Your task to perform on an android device: see creations saved in the google photos Image 0: 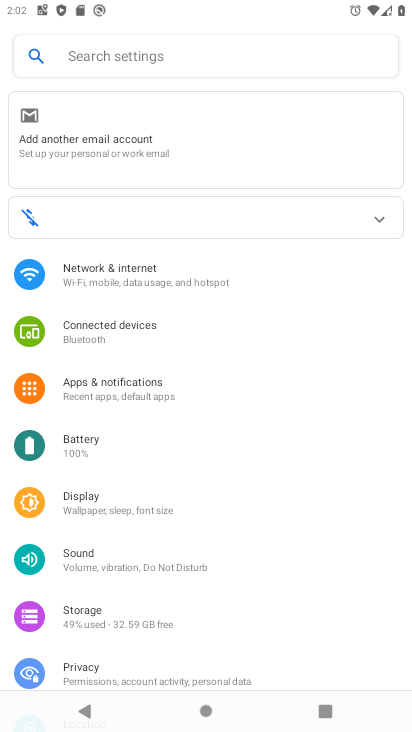
Step 0: press home button
Your task to perform on an android device: see creations saved in the google photos Image 1: 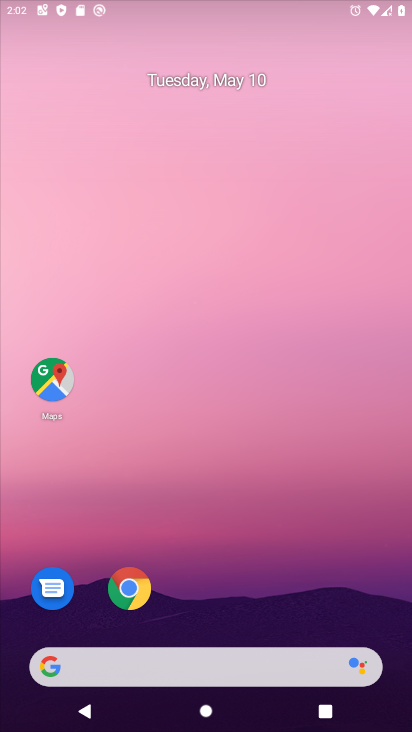
Step 1: drag from (202, 614) to (209, 299)
Your task to perform on an android device: see creations saved in the google photos Image 2: 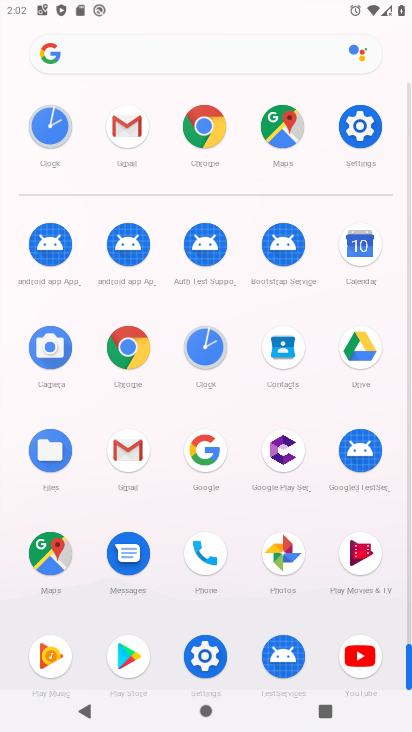
Step 2: click (296, 545)
Your task to perform on an android device: see creations saved in the google photos Image 3: 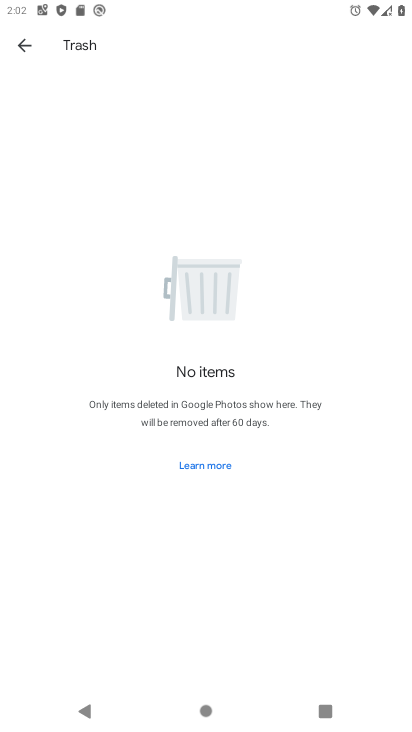
Step 3: click (21, 41)
Your task to perform on an android device: see creations saved in the google photos Image 4: 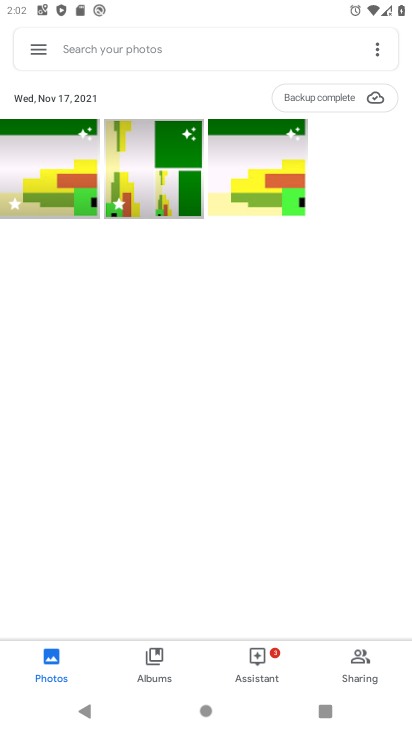
Step 4: click (66, 232)
Your task to perform on an android device: see creations saved in the google photos Image 5: 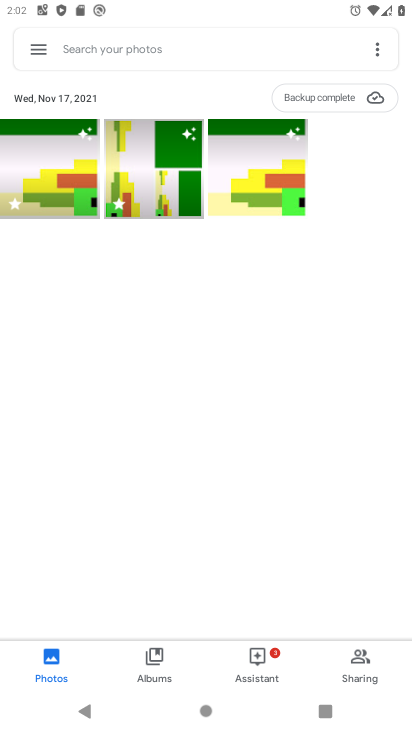
Step 5: click (68, 179)
Your task to perform on an android device: see creations saved in the google photos Image 6: 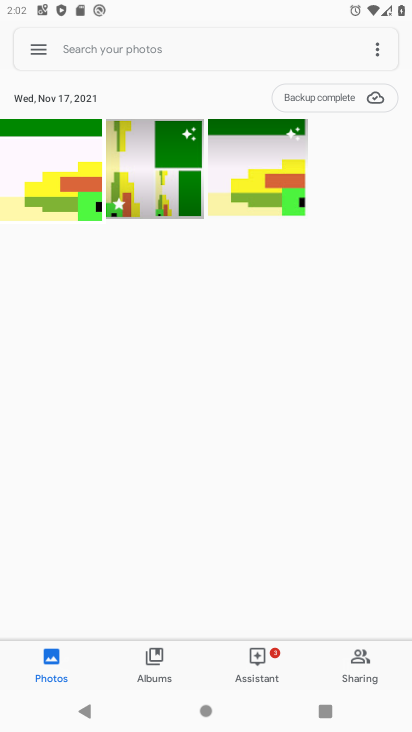
Step 6: click (67, 172)
Your task to perform on an android device: see creations saved in the google photos Image 7: 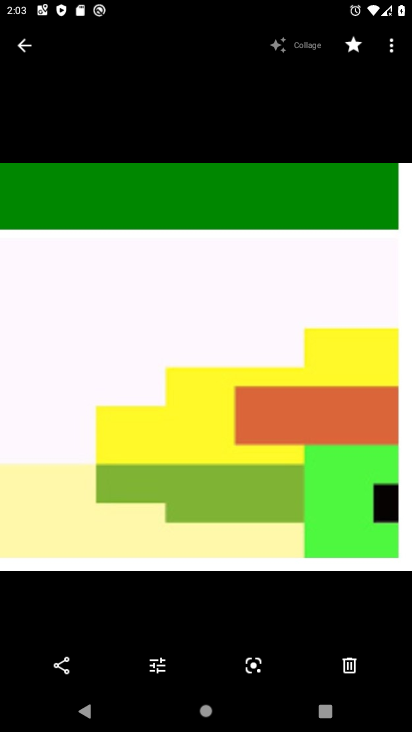
Step 7: task complete